Your task to perform on an android device: change notification settings in the gmail app Image 0: 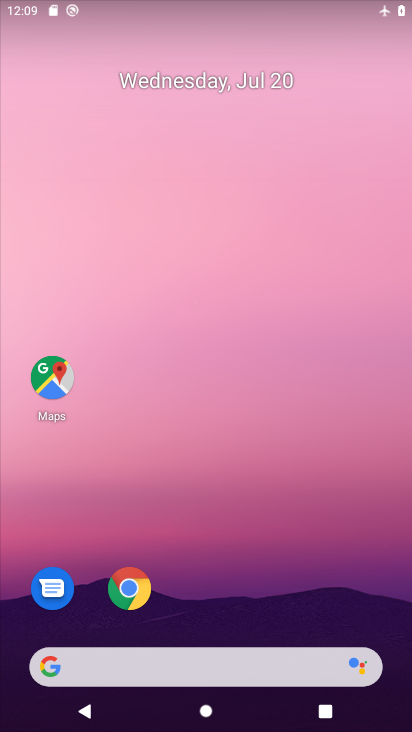
Step 0: drag from (235, 591) to (279, 233)
Your task to perform on an android device: change notification settings in the gmail app Image 1: 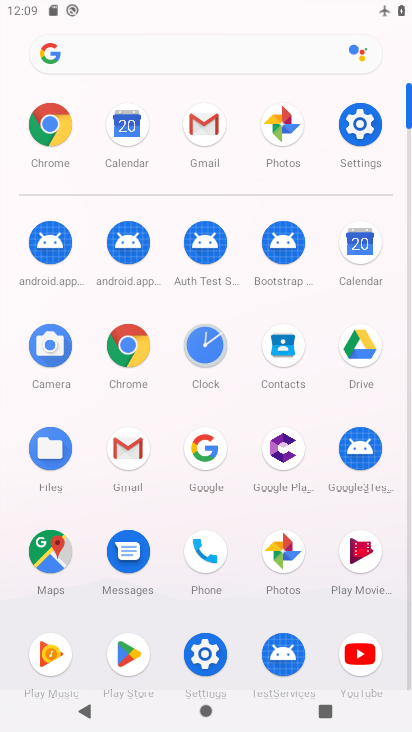
Step 1: click (212, 114)
Your task to perform on an android device: change notification settings in the gmail app Image 2: 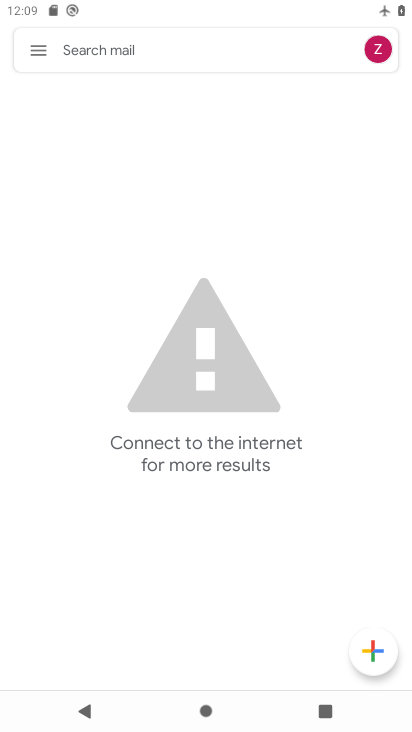
Step 2: click (42, 46)
Your task to perform on an android device: change notification settings in the gmail app Image 3: 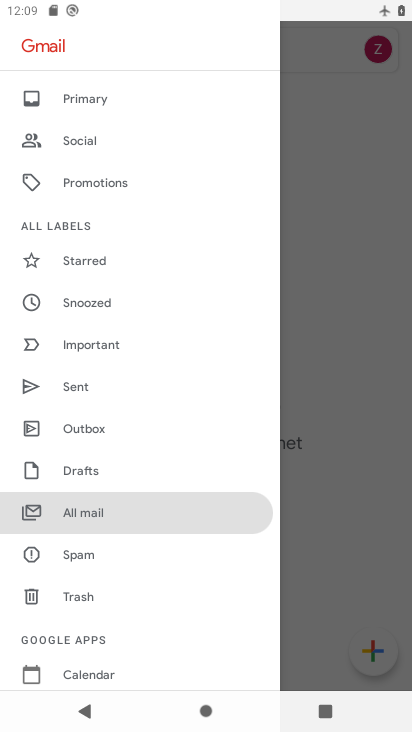
Step 3: drag from (98, 642) to (157, 211)
Your task to perform on an android device: change notification settings in the gmail app Image 4: 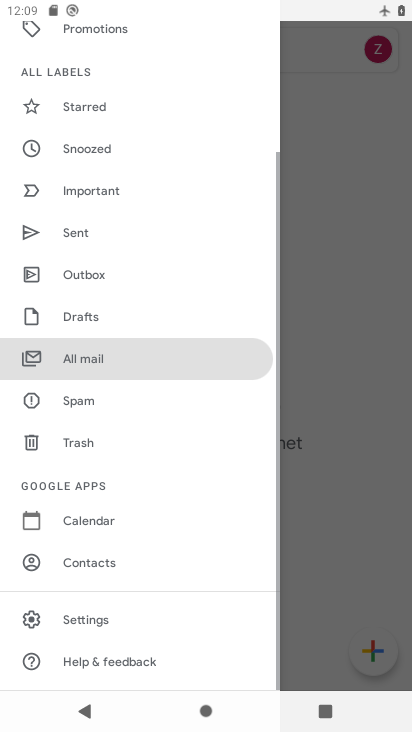
Step 4: click (109, 612)
Your task to perform on an android device: change notification settings in the gmail app Image 5: 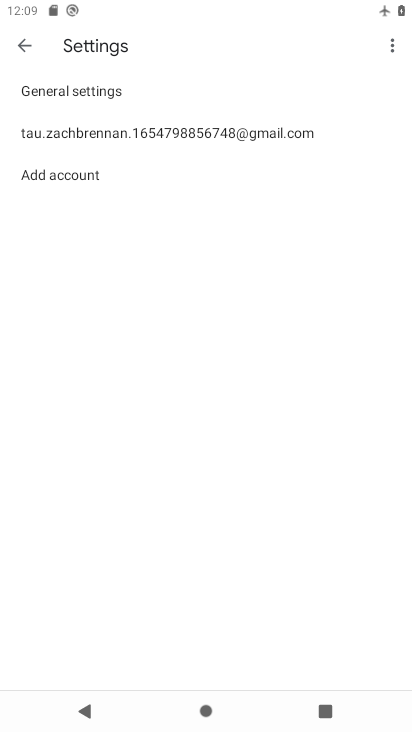
Step 5: click (107, 124)
Your task to perform on an android device: change notification settings in the gmail app Image 6: 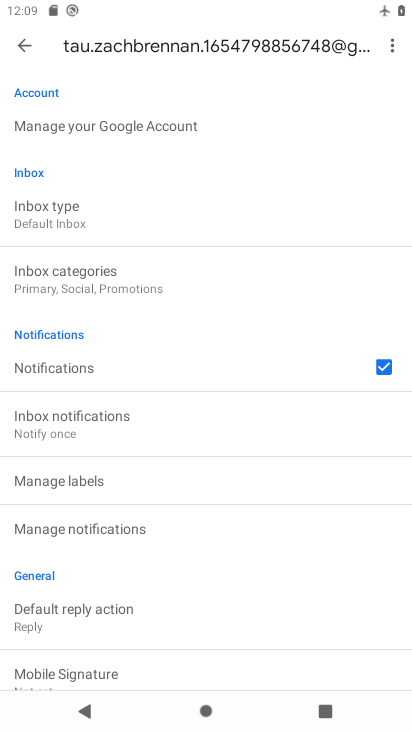
Step 6: click (88, 361)
Your task to perform on an android device: change notification settings in the gmail app Image 7: 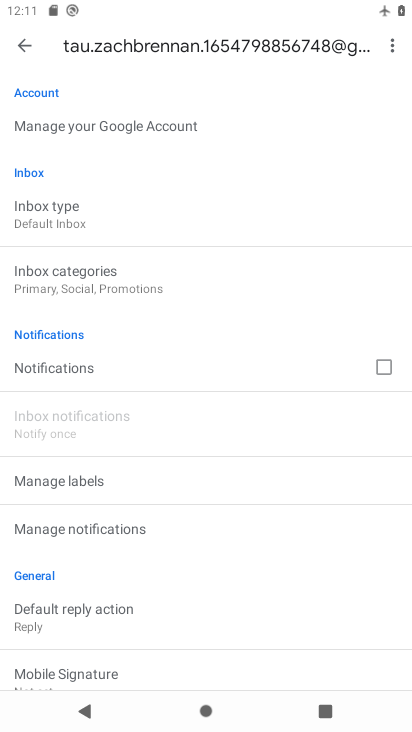
Step 7: task complete